Your task to perform on an android device: create a new album in the google photos Image 0: 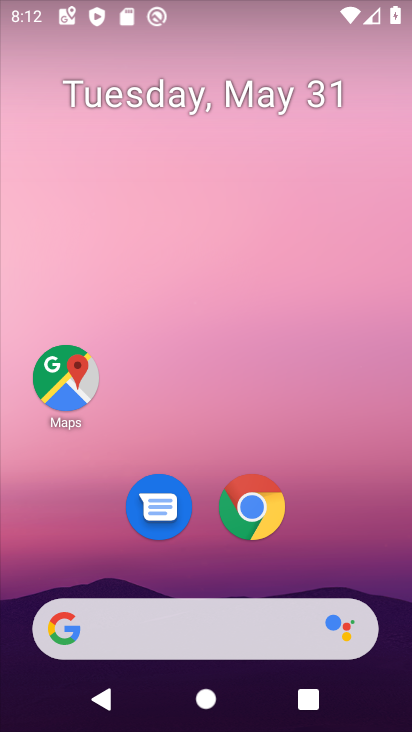
Step 0: drag from (344, 513) to (254, 104)
Your task to perform on an android device: create a new album in the google photos Image 1: 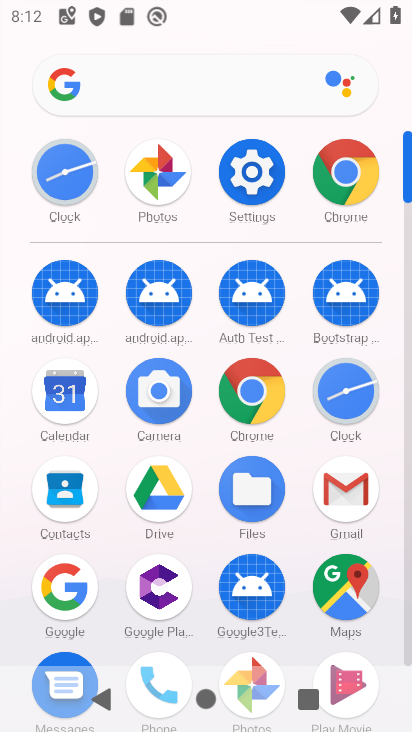
Step 1: click (165, 181)
Your task to perform on an android device: create a new album in the google photos Image 2: 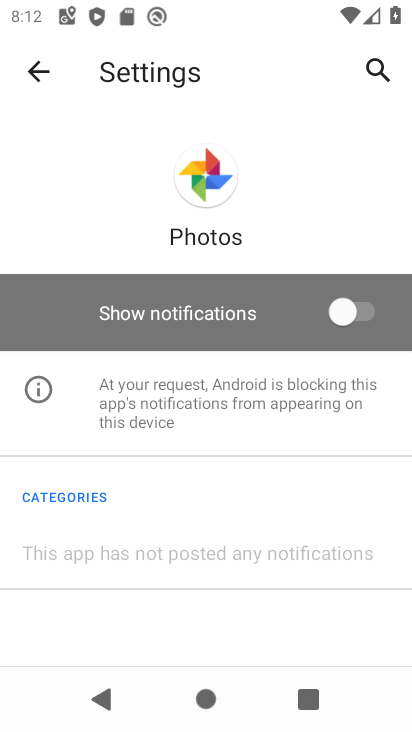
Step 2: click (20, 81)
Your task to perform on an android device: create a new album in the google photos Image 3: 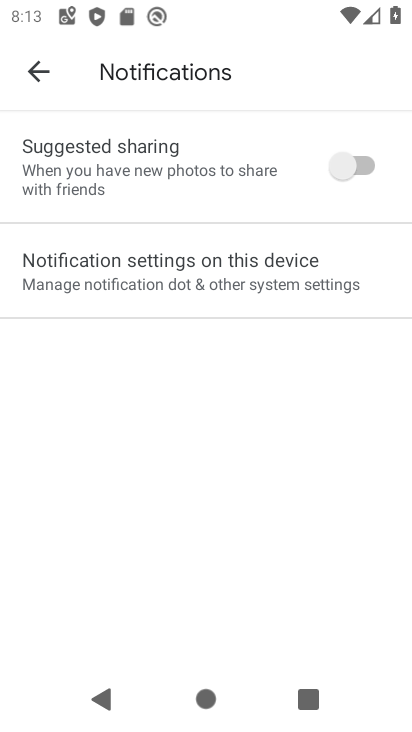
Step 3: click (30, 80)
Your task to perform on an android device: create a new album in the google photos Image 4: 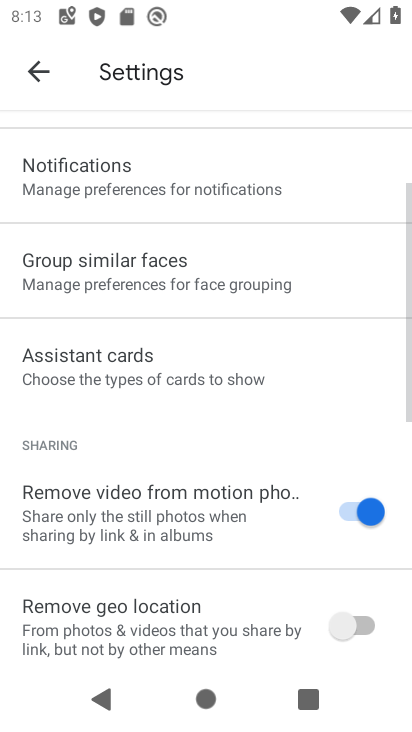
Step 4: click (39, 74)
Your task to perform on an android device: create a new album in the google photos Image 5: 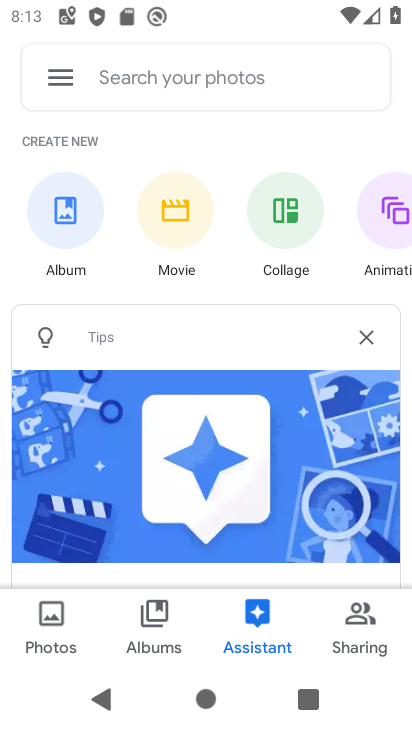
Step 5: click (193, 629)
Your task to perform on an android device: create a new album in the google photos Image 6: 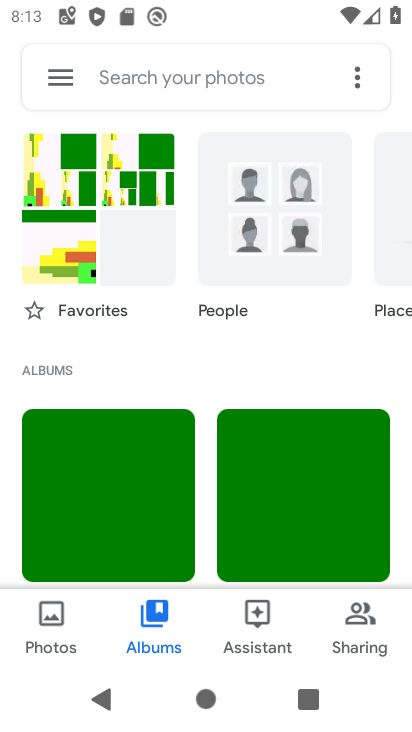
Step 6: click (351, 67)
Your task to perform on an android device: create a new album in the google photos Image 7: 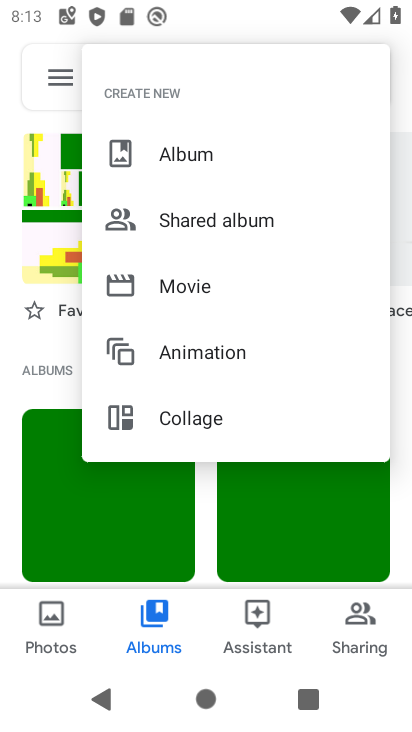
Step 7: click (172, 149)
Your task to perform on an android device: create a new album in the google photos Image 8: 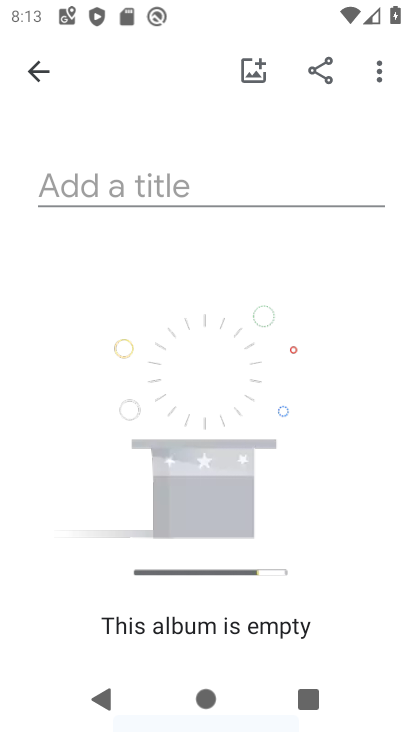
Step 8: click (185, 188)
Your task to perform on an android device: create a new album in the google photos Image 9: 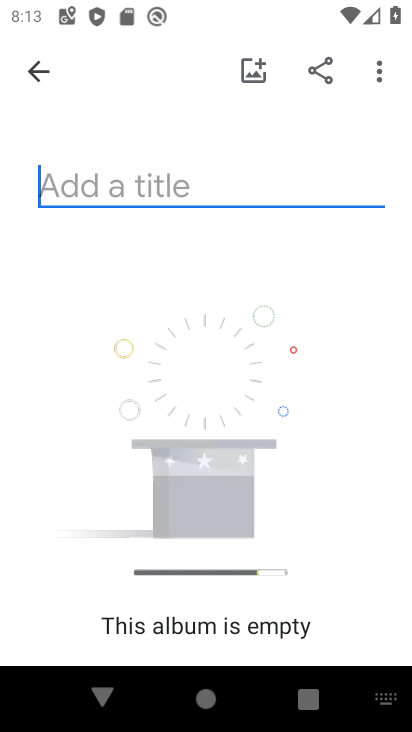
Step 9: type "qatil"
Your task to perform on an android device: create a new album in the google photos Image 10: 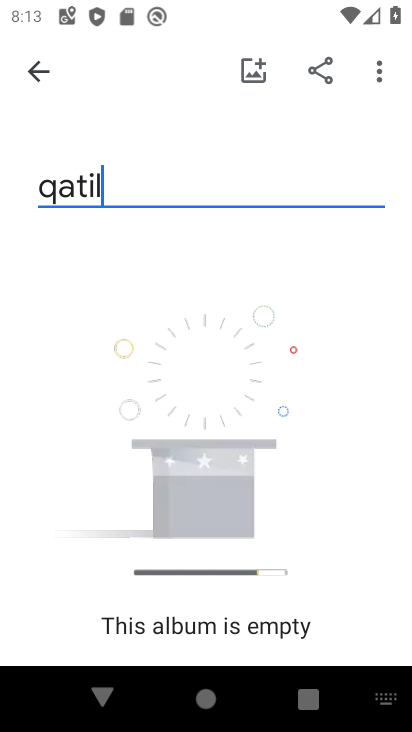
Step 10: type ""
Your task to perform on an android device: create a new album in the google photos Image 11: 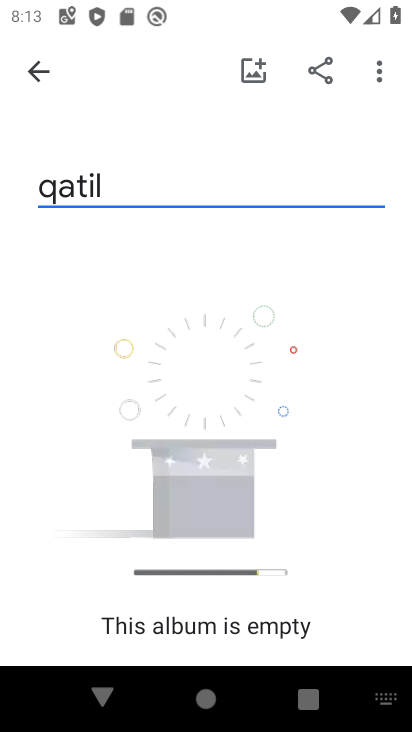
Step 11: drag from (362, 454) to (325, 229)
Your task to perform on an android device: create a new album in the google photos Image 12: 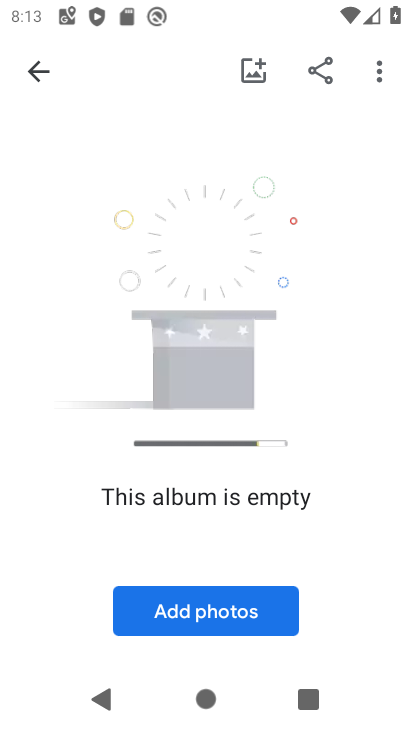
Step 12: click (254, 603)
Your task to perform on an android device: create a new album in the google photos Image 13: 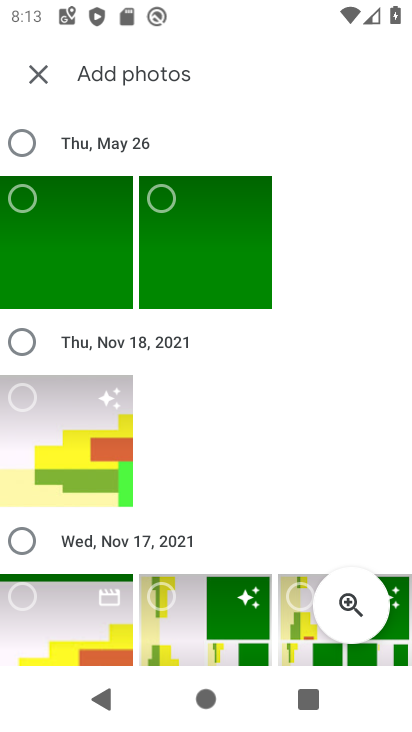
Step 13: click (52, 428)
Your task to perform on an android device: create a new album in the google photos Image 14: 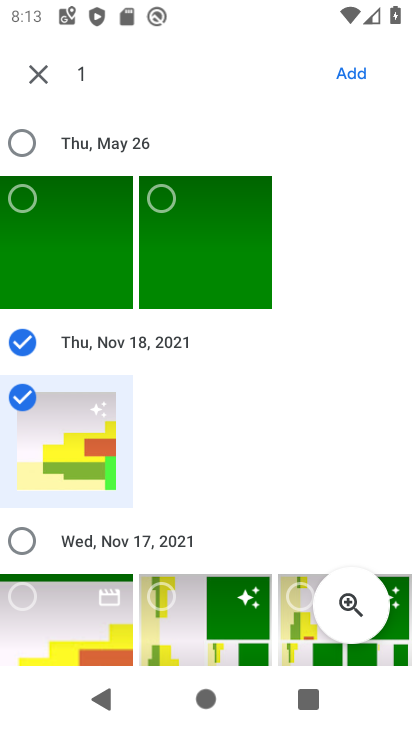
Step 14: click (371, 74)
Your task to perform on an android device: create a new album in the google photos Image 15: 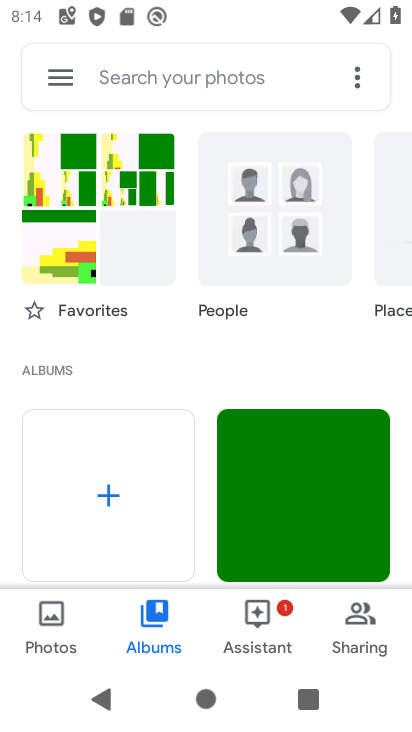
Step 15: task complete